Your task to perform on an android device: change keyboard looks Image 0: 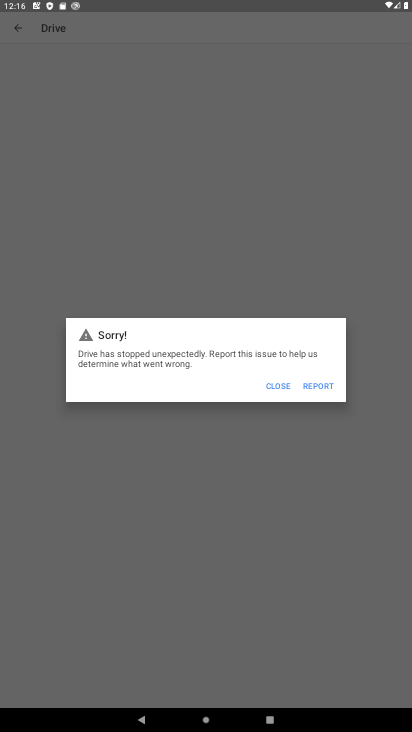
Step 0: press home button
Your task to perform on an android device: change keyboard looks Image 1: 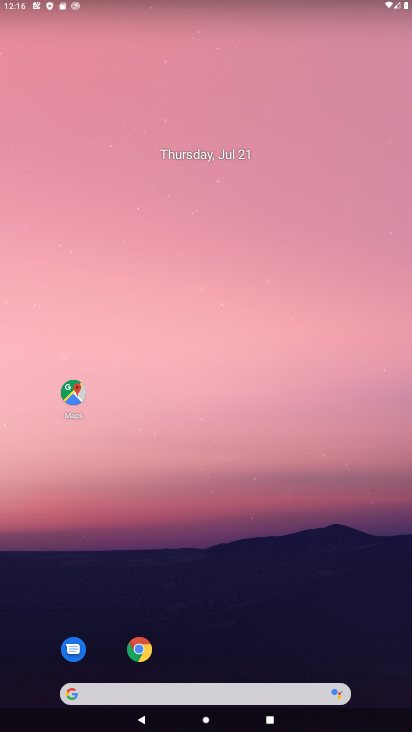
Step 1: drag from (235, 717) to (171, 40)
Your task to perform on an android device: change keyboard looks Image 2: 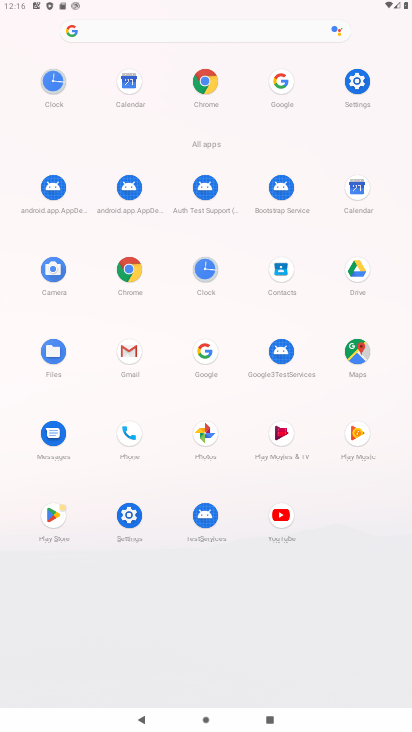
Step 2: click (352, 79)
Your task to perform on an android device: change keyboard looks Image 3: 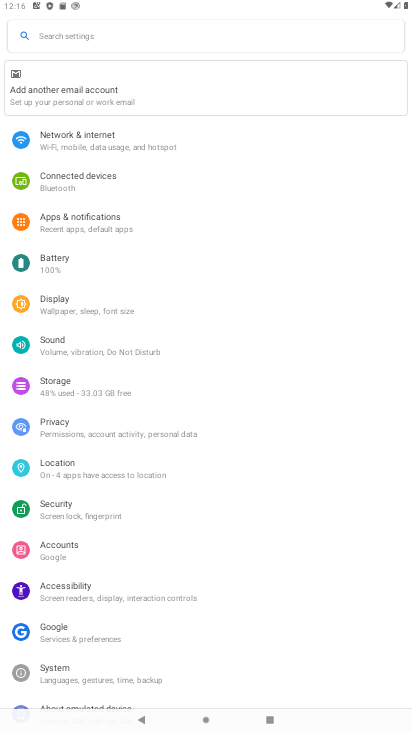
Step 3: drag from (116, 658) to (142, 433)
Your task to perform on an android device: change keyboard looks Image 4: 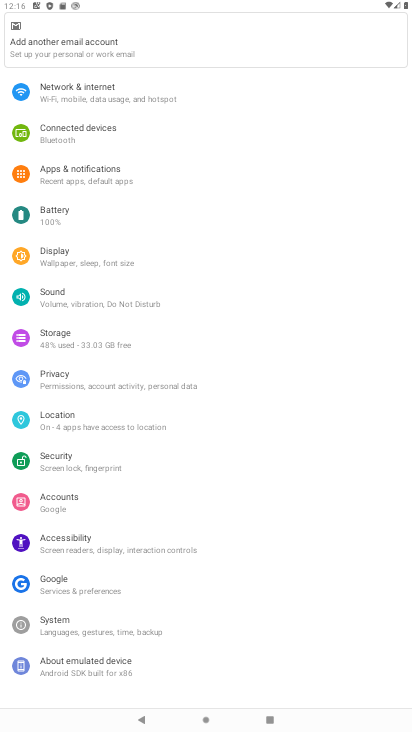
Step 4: click (69, 617)
Your task to perform on an android device: change keyboard looks Image 5: 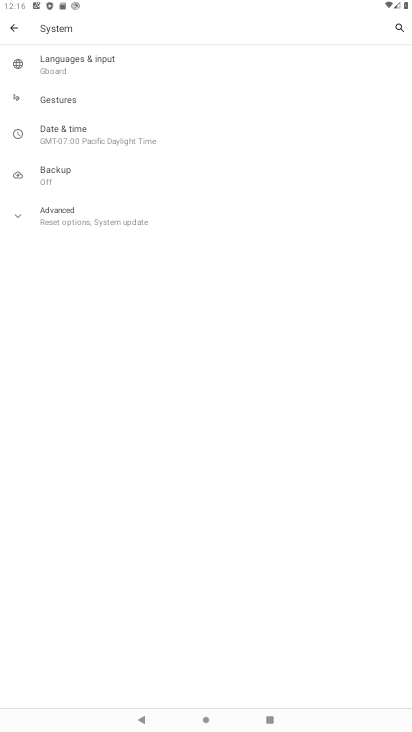
Step 5: click (66, 63)
Your task to perform on an android device: change keyboard looks Image 6: 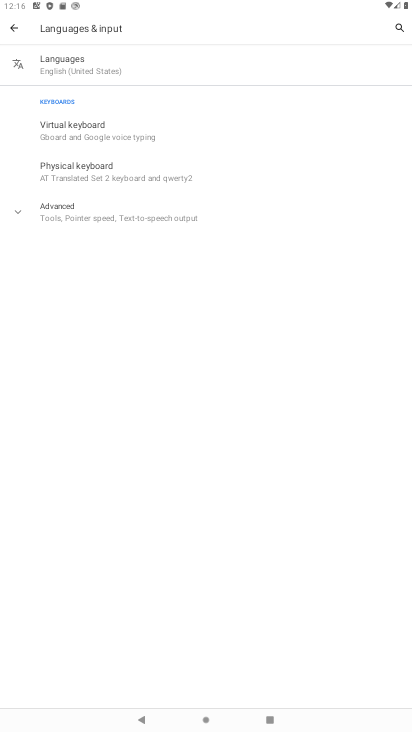
Step 6: click (93, 125)
Your task to perform on an android device: change keyboard looks Image 7: 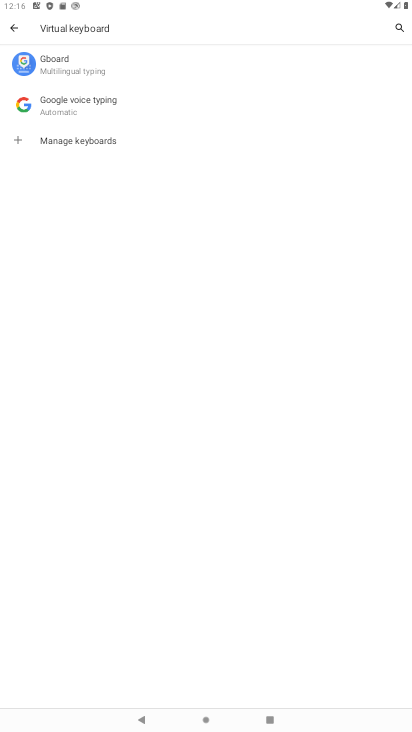
Step 7: click (63, 66)
Your task to perform on an android device: change keyboard looks Image 8: 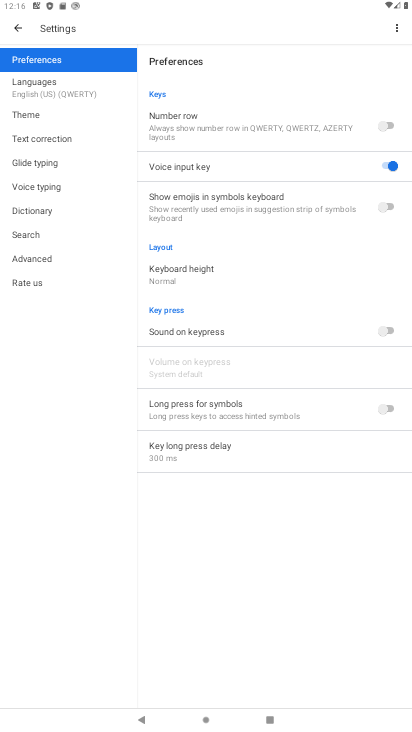
Step 8: click (30, 116)
Your task to perform on an android device: change keyboard looks Image 9: 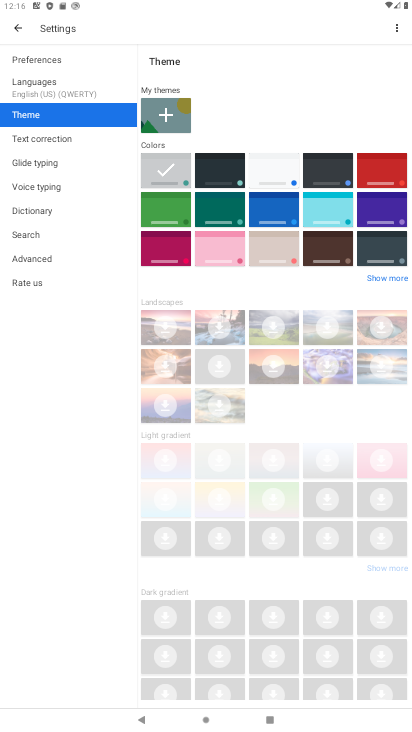
Step 9: click (227, 175)
Your task to perform on an android device: change keyboard looks Image 10: 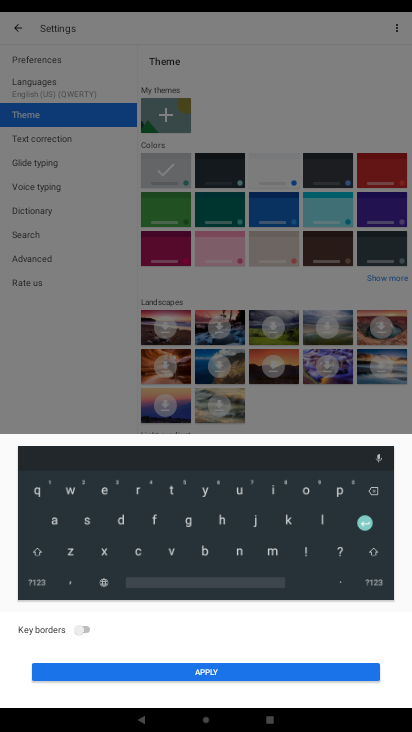
Step 10: click (87, 628)
Your task to perform on an android device: change keyboard looks Image 11: 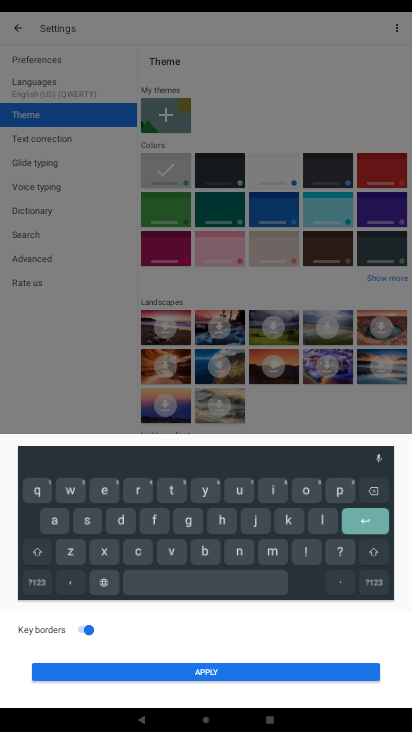
Step 11: click (209, 674)
Your task to perform on an android device: change keyboard looks Image 12: 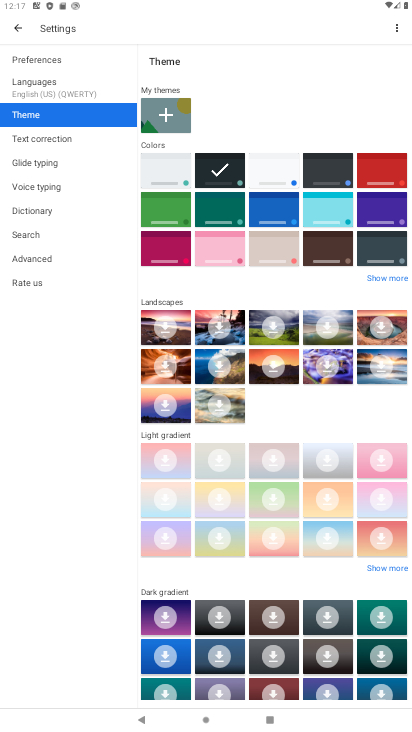
Step 12: task complete